Your task to perform on an android device: Go to notification settings Image 0: 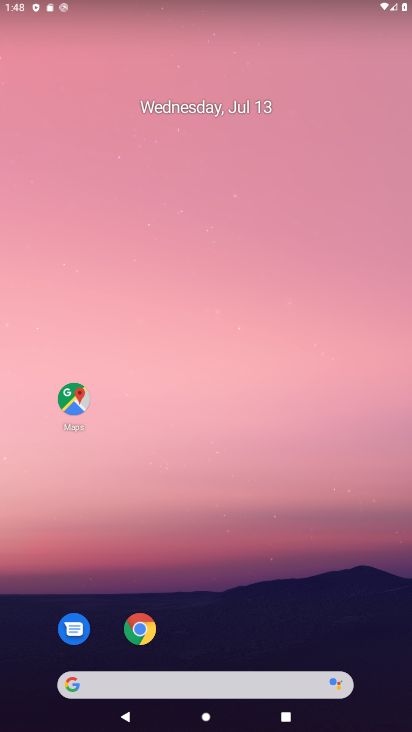
Step 0: drag from (261, 658) to (195, 175)
Your task to perform on an android device: Go to notification settings Image 1: 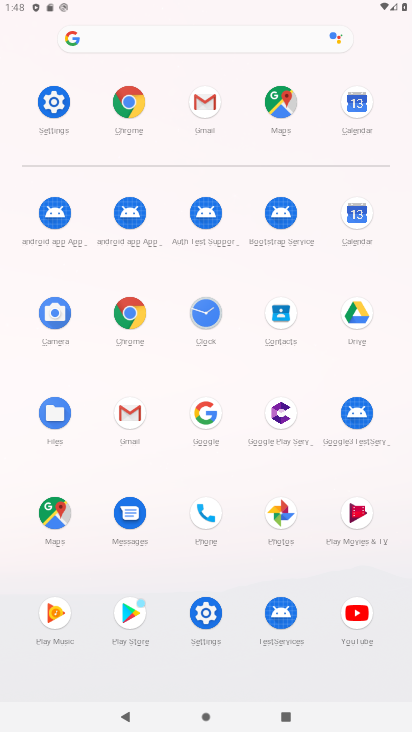
Step 1: click (60, 93)
Your task to perform on an android device: Go to notification settings Image 2: 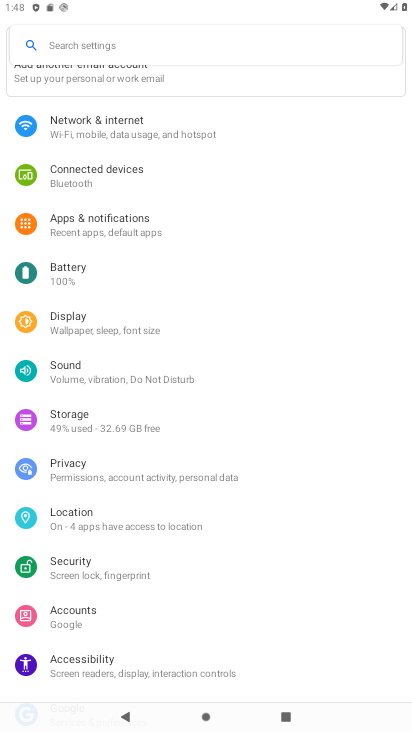
Step 2: click (133, 237)
Your task to perform on an android device: Go to notification settings Image 3: 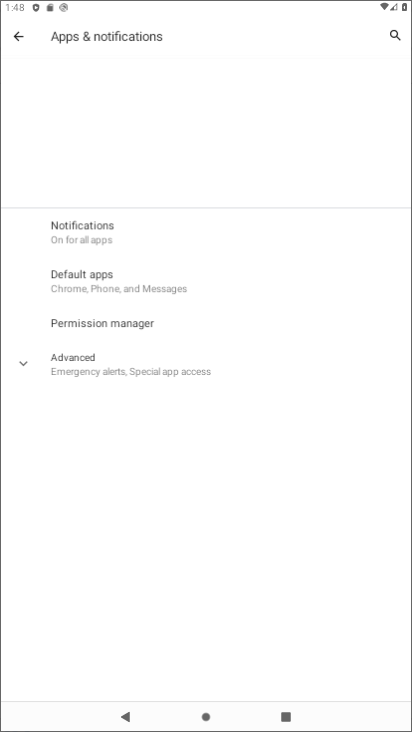
Step 3: task complete